Your task to perform on an android device: change notification settings in the gmail app Image 0: 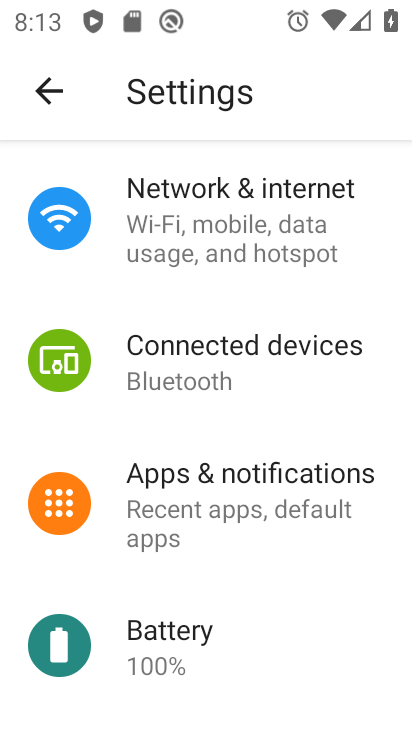
Step 0: press home button
Your task to perform on an android device: change notification settings in the gmail app Image 1: 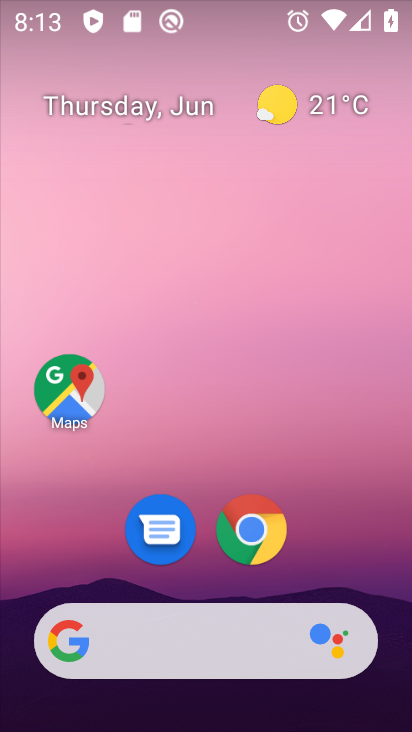
Step 1: drag from (390, 637) to (381, 376)
Your task to perform on an android device: change notification settings in the gmail app Image 2: 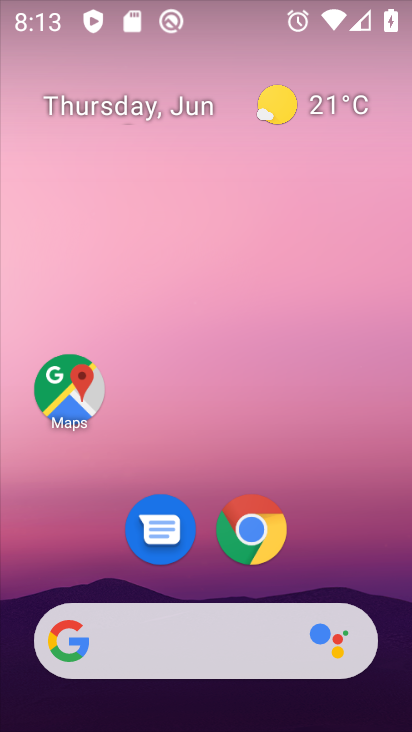
Step 2: drag from (388, 657) to (372, 87)
Your task to perform on an android device: change notification settings in the gmail app Image 3: 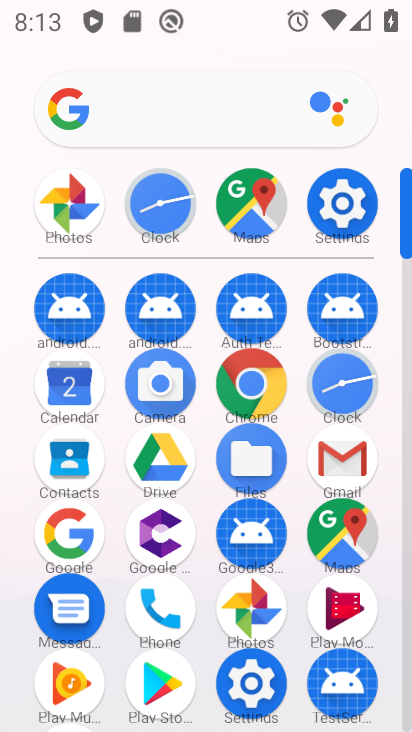
Step 3: click (341, 459)
Your task to perform on an android device: change notification settings in the gmail app Image 4: 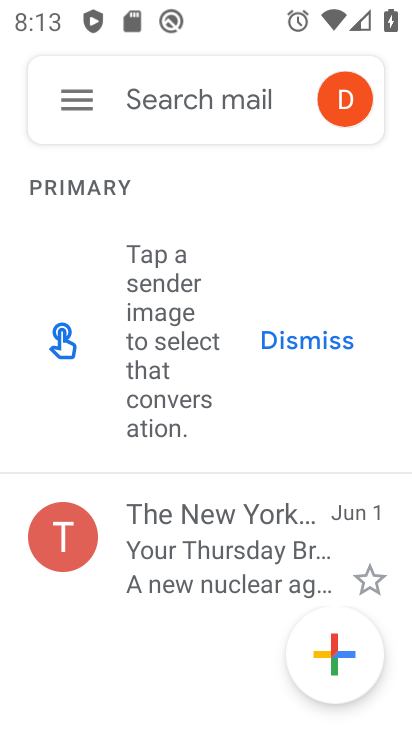
Step 4: click (78, 75)
Your task to perform on an android device: change notification settings in the gmail app Image 5: 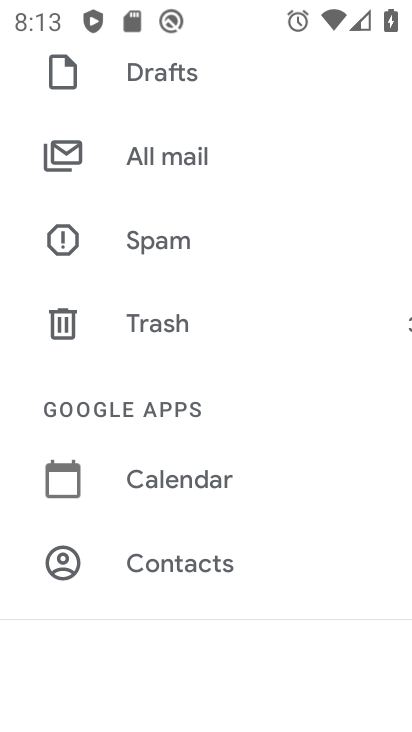
Step 5: drag from (322, 546) to (318, 252)
Your task to perform on an android device: change notification settings in the gmail app Image 6: 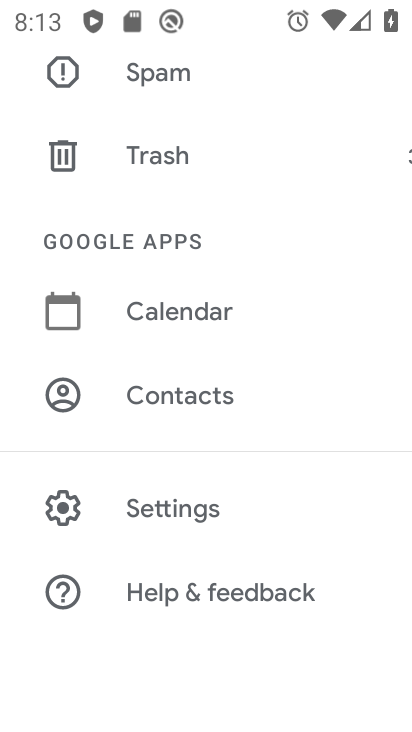
Step 6: click (182, 502)
Your task to perform on an android device: change notification settings in the gmail app Image 7: 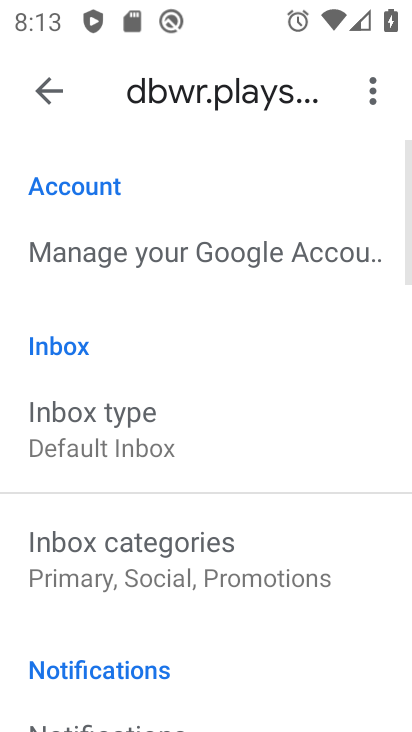
Step 7: click (50, 96)
Your task to perform on an android device: change notification settings in the gmail app Image 8: 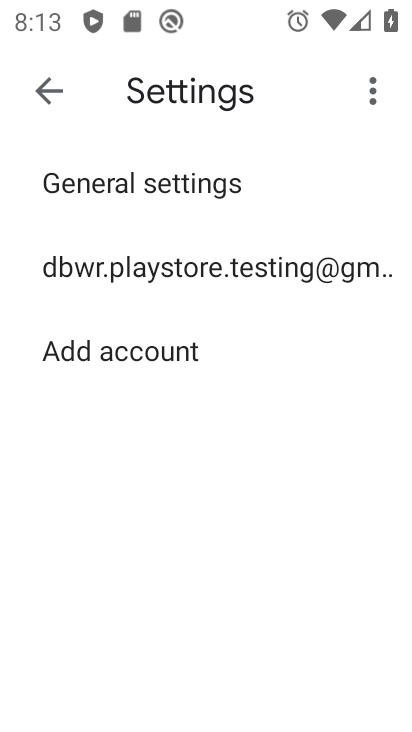
Step 8: click (159, 193)
Your task to perform on an android device: change notification settings in the gmail app Image 9: 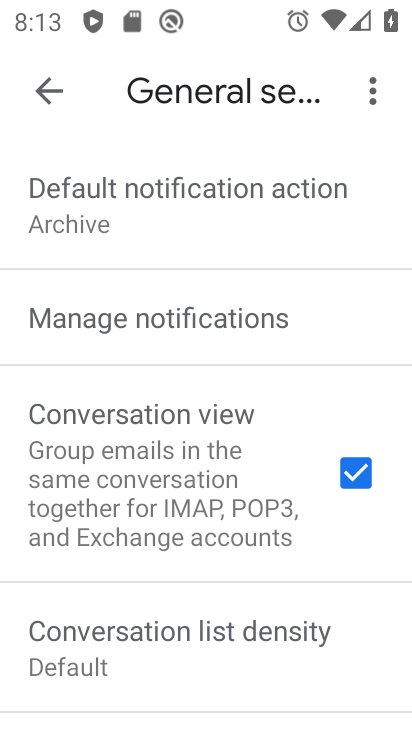
Step 9: click (146, 305)
Your task to perform on an android device: change notification settings in the gmail app Image 10: 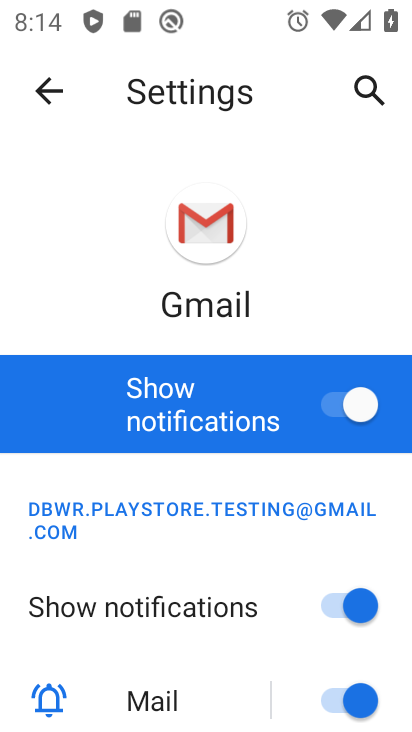
Step 10: click (325, 402)
Your task to perform on an android device: change notification settings in the gmail app Image 11: 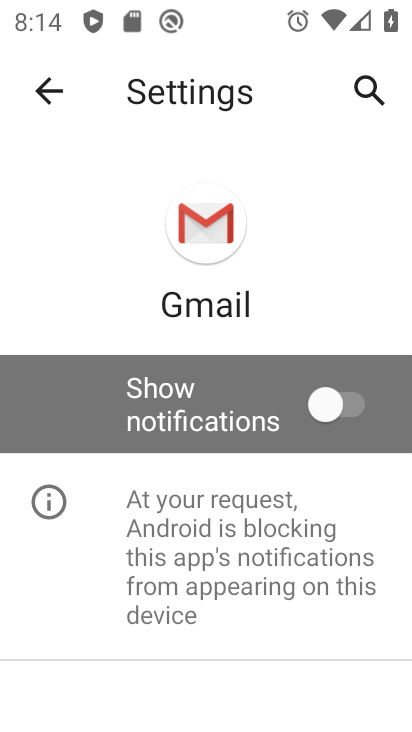
Step 11: task complete